Your task to perform on an android device: all mails in gmail Image 0: 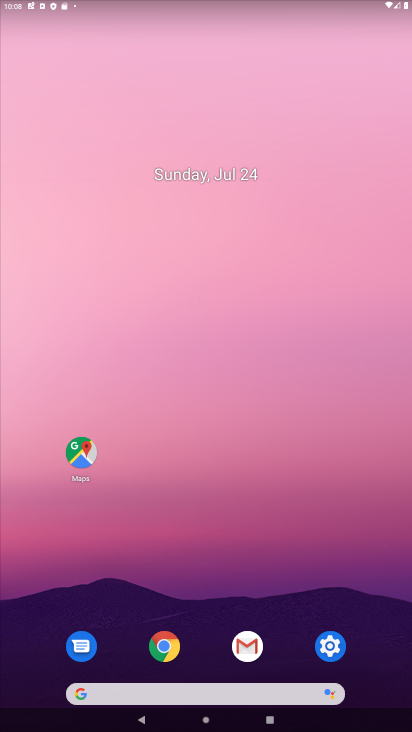
Step 0: click (244, 632)
Your task to perform on an android device: all mails in gmail Image 1: 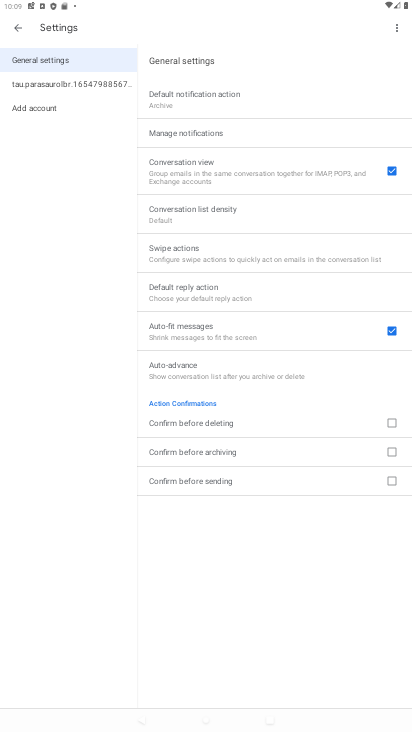
Step 1: click (21, 28)
Your task to perform on an android device: all mails in gmail Image 2: 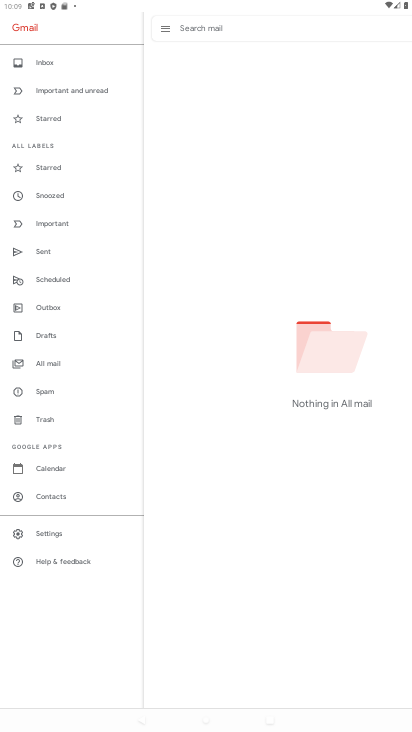
Step 2: click (59, 362)
Your task to perform on an android device: all mails in gmail Image 3: 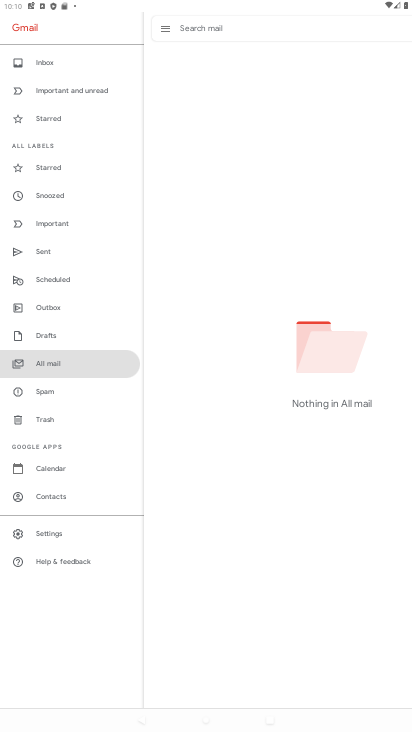
Step 3: task complete